Your task to perform on an android device: Go to wifi settings Image 0: 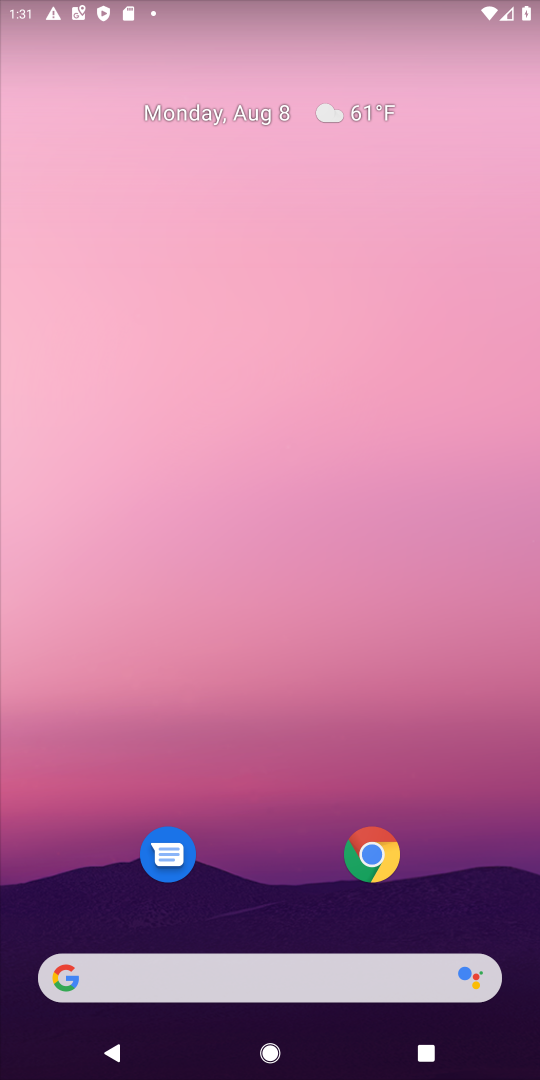
Step 0: drag from (46, 1042) to (300, 162)
Your task to perform on an android device: Go to wifi settings Image 1: 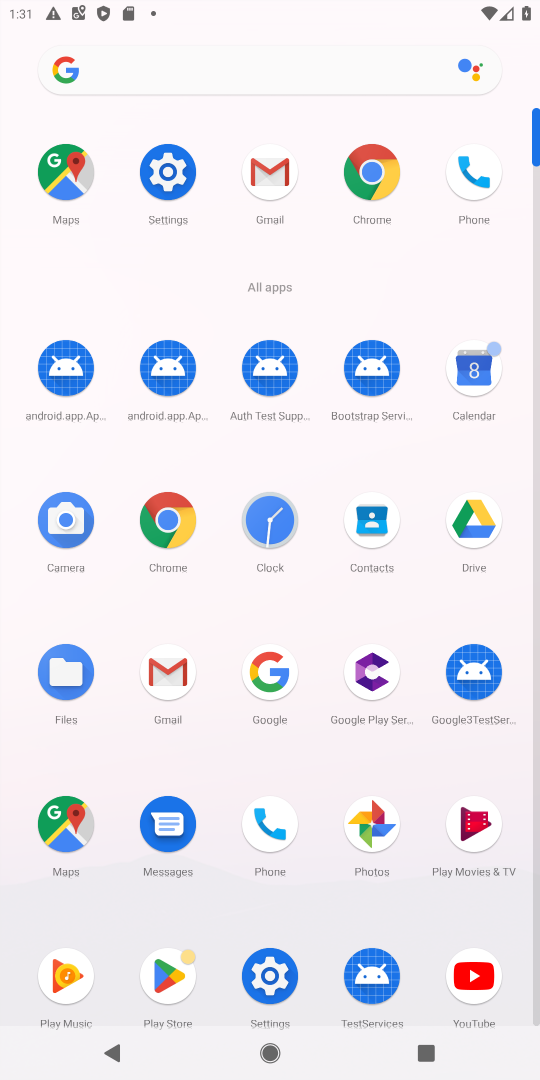
Step 1: click (271, 956)
Your task to perform on an android device: Go to wifi settings Image 2: 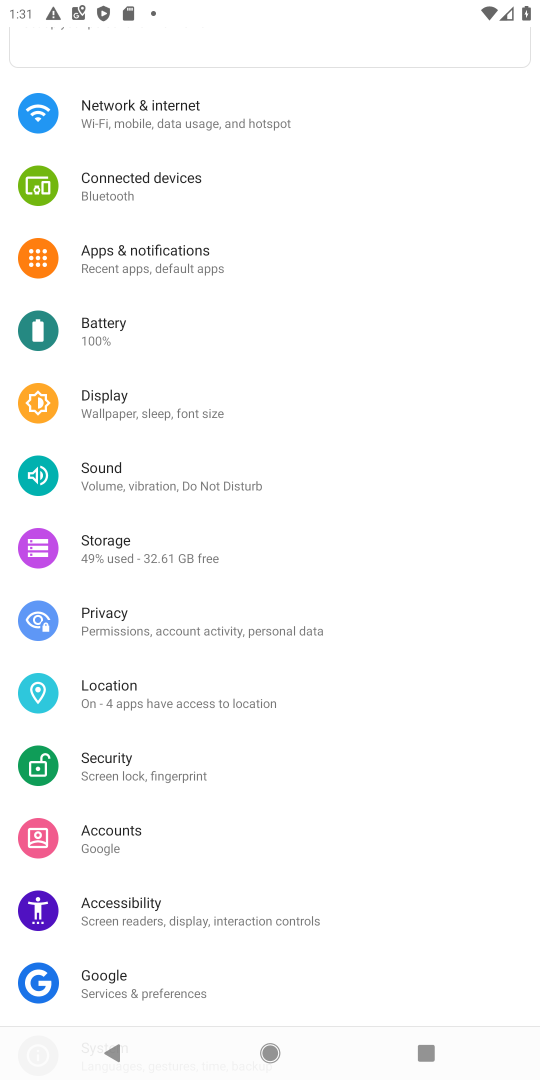
Step 2: click (215, 109)
Your task to perform on an android device: Go to wifi settings Image 3: 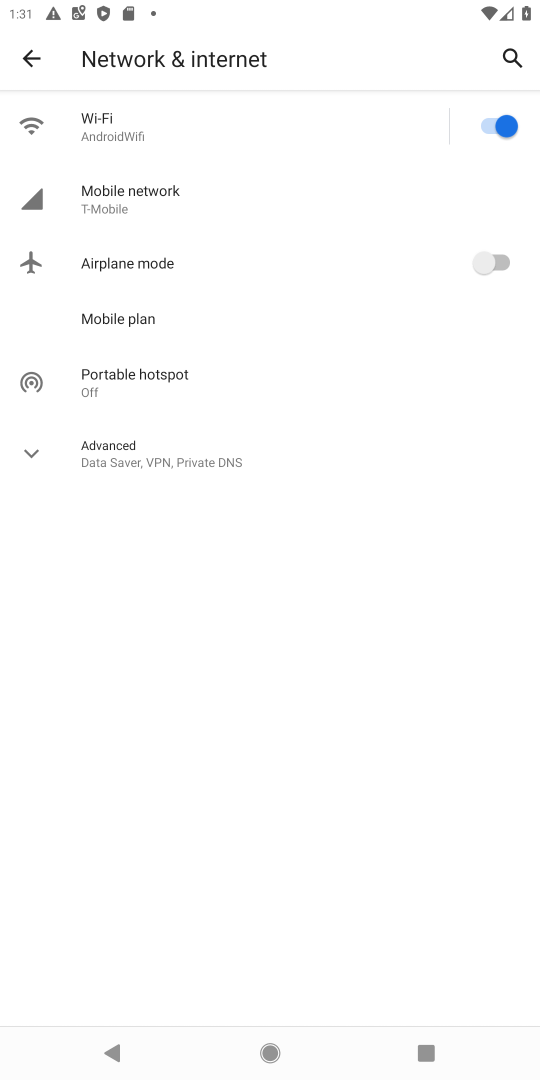
Step 3: task complete